Your task to perform on an android device: Open calendar and show me the third week of next month Image 0: 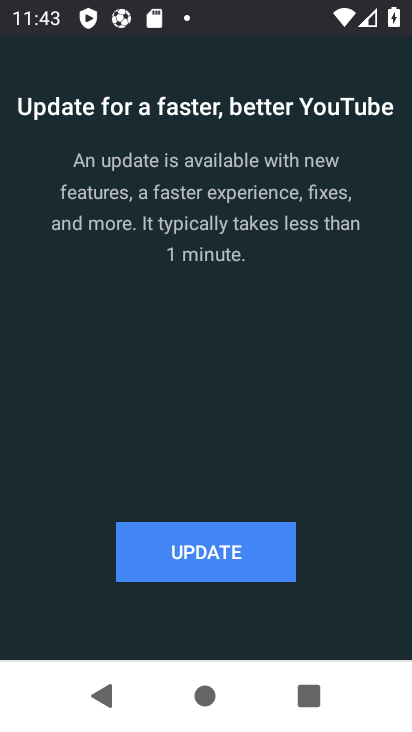
Step 0: press home button
Your task to perform on an android device: Open calendar and show me the third week of next month Image 1: 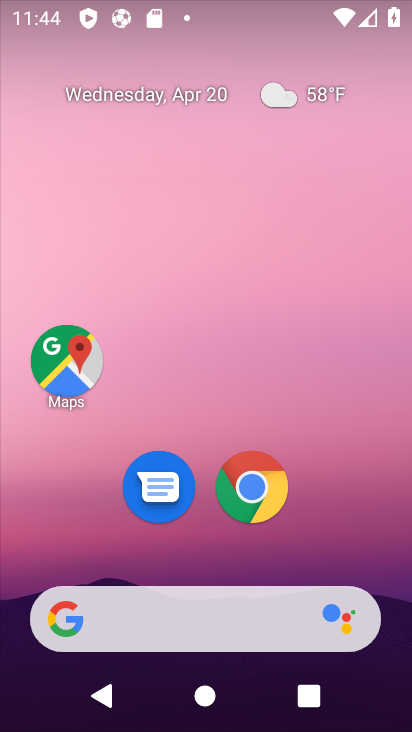
Step 1: drag from (320, 514) to (324, 40)
Your task to perform on an android device: Open calendar and show me the third week of next month Image 2: 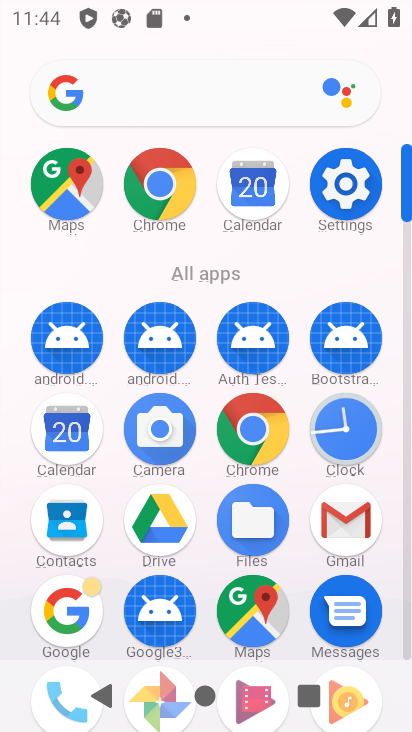
Step 2: click (243, 187)
Your task to perform on an android device: Open calendar and show me the third week of next month Image 3: 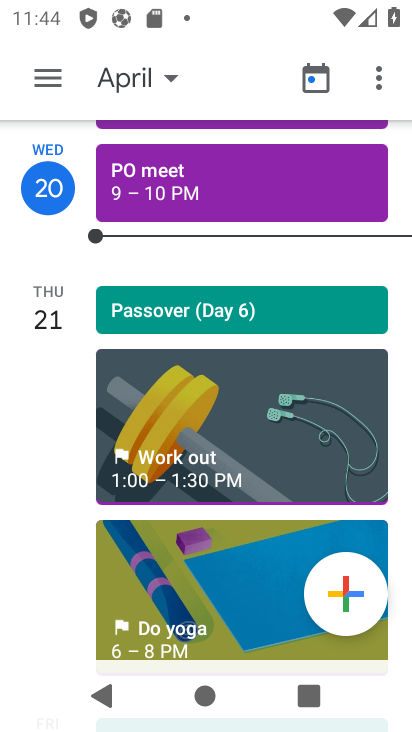
Step 3: click (160, 78)
Your task to perform on an android device: Open calendar and show me the third week of next month Image 4: 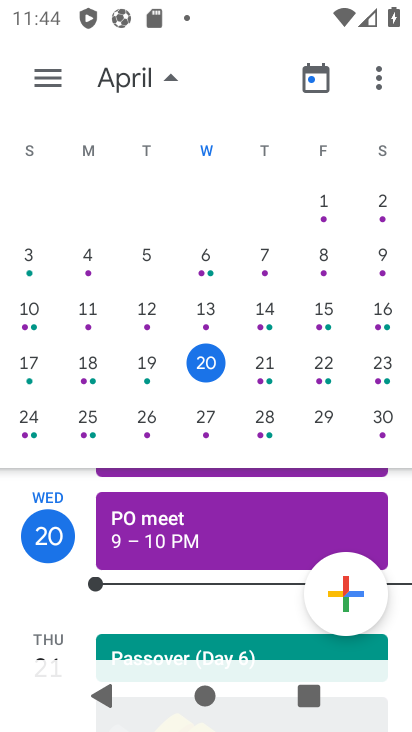
Step 4: drag from (324, 324) to (16, 486)
Your task to perform on an android device: Open calendar and show me the third week of next month Image 5: 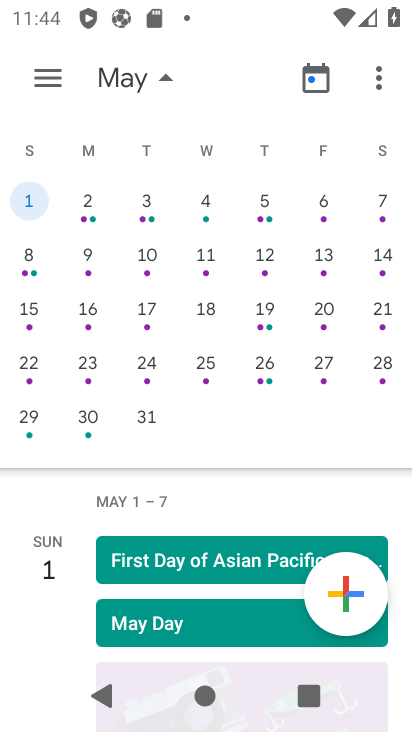
Step 5: click (45, 80)
Your task to perform on an android device: Open calendar and show me the third week of next month Image 6: 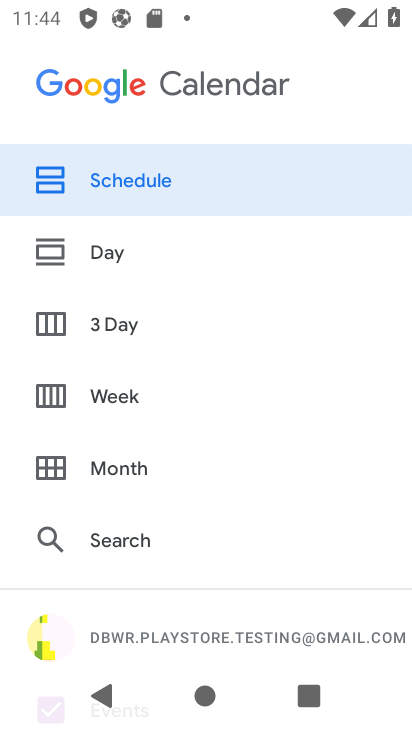
Step 6: click (116, 399)
Your task to perform on an android device: Open calendar and show me the third week of next month Image 7: 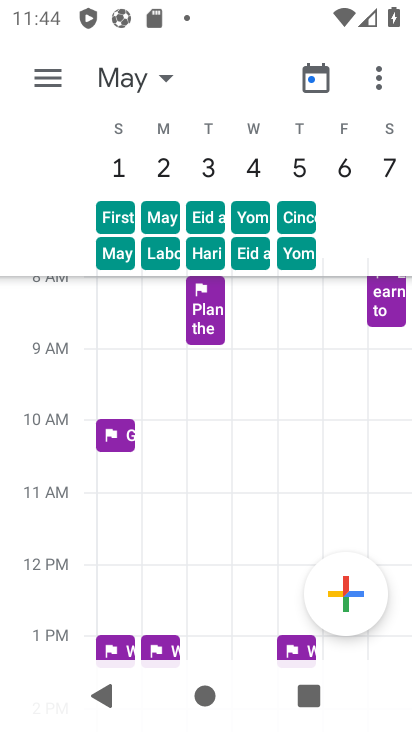
Step 7: task complete